Your task to perform on an android device: set default search engine in the chrome app Image 0: 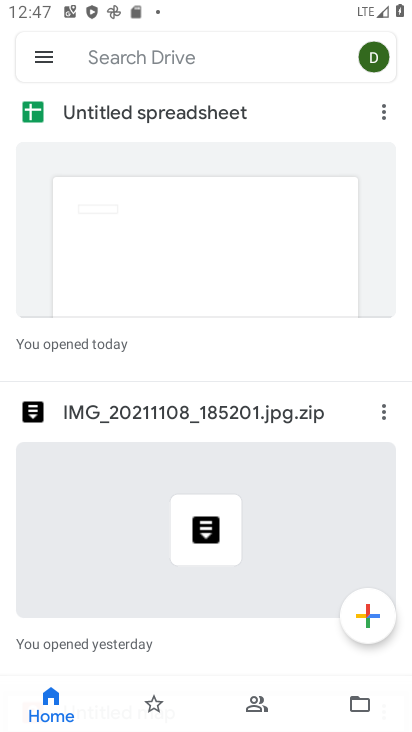
Step 0: press home button
Your task to perform on an android device: set default search engine in the chrome app Image 1: 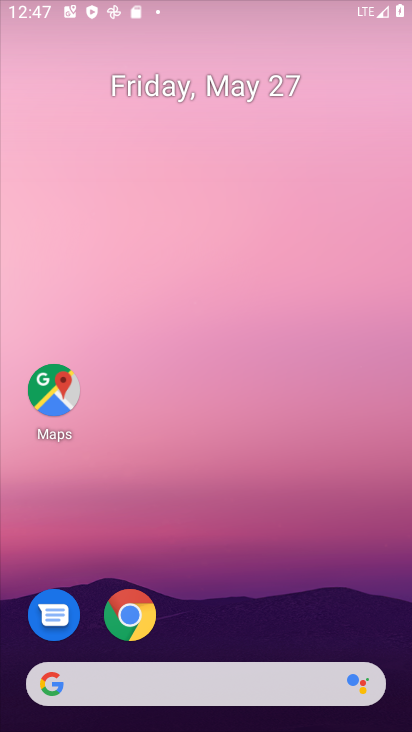
Step 1: drag from (227, 667) to (176, 70)
Your task to perform on an android device: set default search engine in the chrome app Image 2: 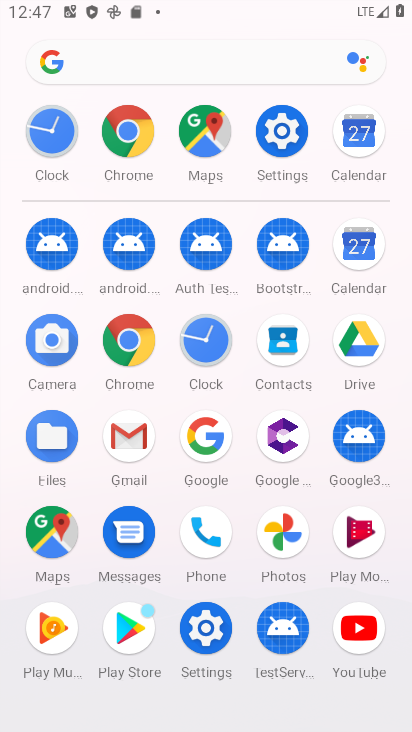
Step 2: click (128, 344)
Your task to perform on an android device: set default search engine in the chrome app Image 3: 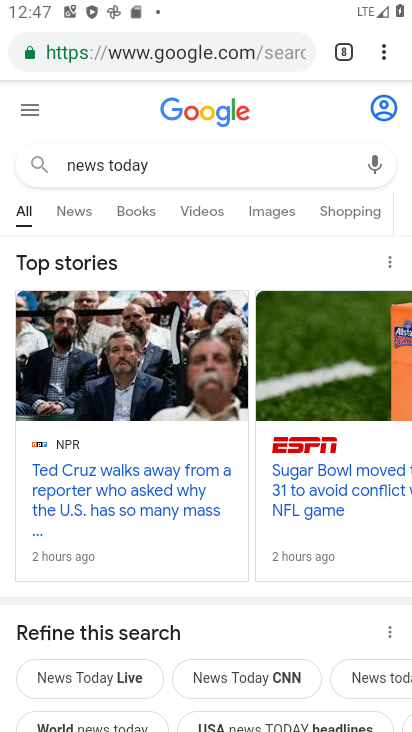
Step 3: drag from (385, 50) to (202, 591)
Your task to perform on an android device: set default search engine in the chrome app Image 4: 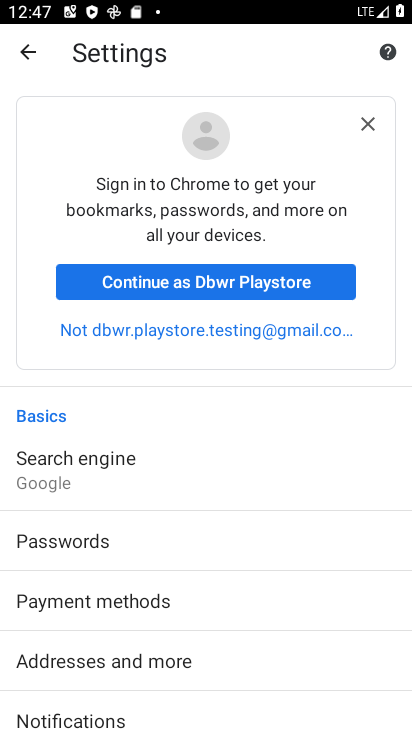
Step 4: drag from (189, 712) to (228, 303)
Your task to perform on an android device: set default search engine in the chrome app Image 5: 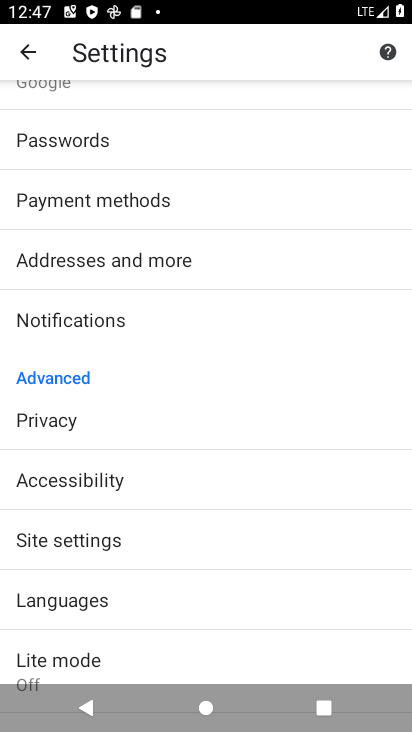
Step 5: drag from (150, 196) to (163, 533)
Your task to perform on an android device: set default search engine in the chrome app Image 6: 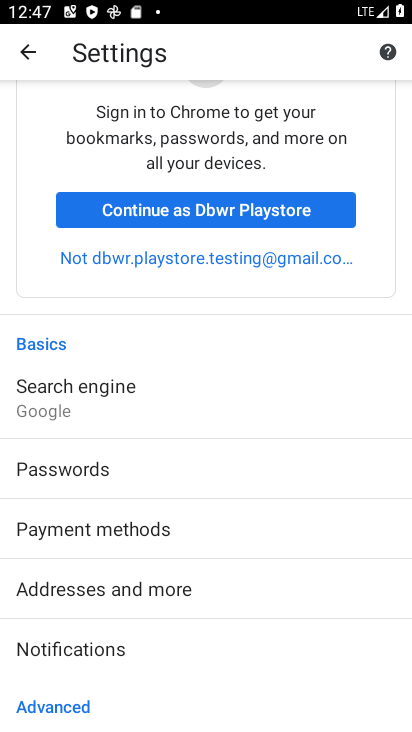
Step 6: click (141, 412)
Your task to perform on an android device: set default search engine in the chrome app Image 7: 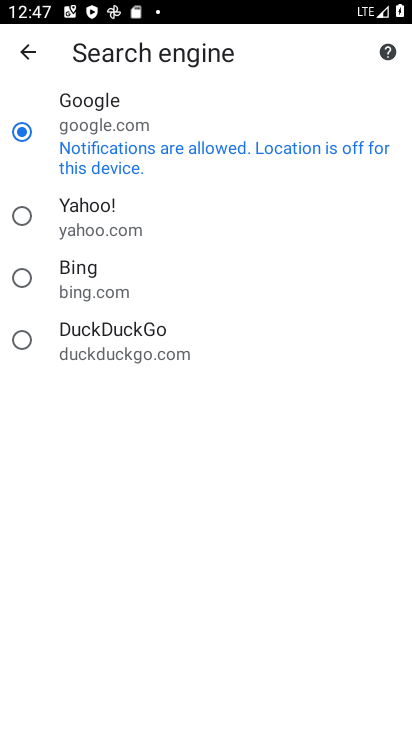
Step 7: task complete